Your task to perform on an android device: Open Yahoo.com Image 0: 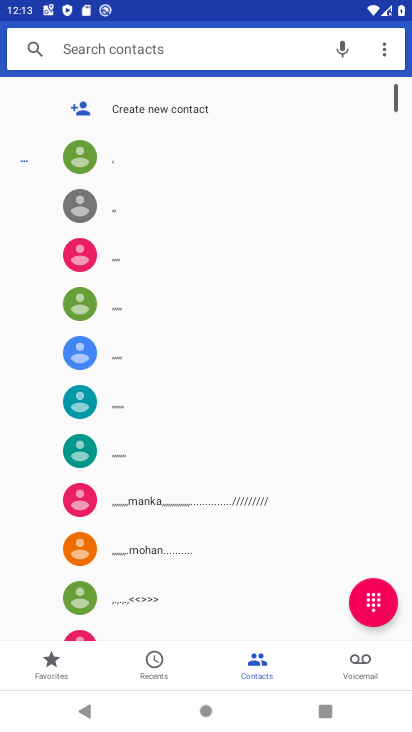
Step 0: press home button
Your task to perform on an android device: Open Yahoo.com Image 1: 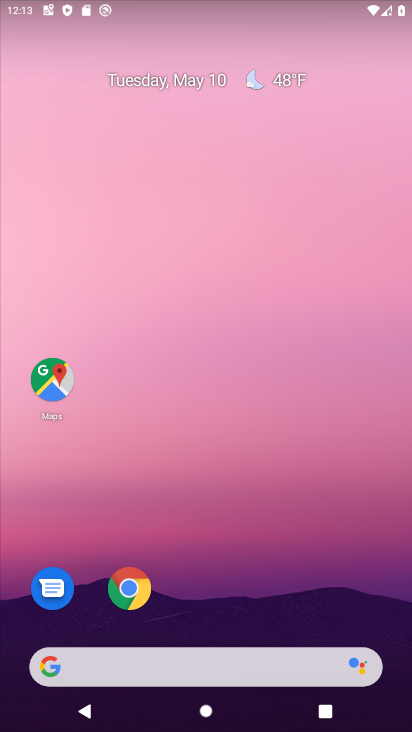
Step 1: click (132, 578)
Your task to perform on an android device: Open Yahoo.com Image 2: 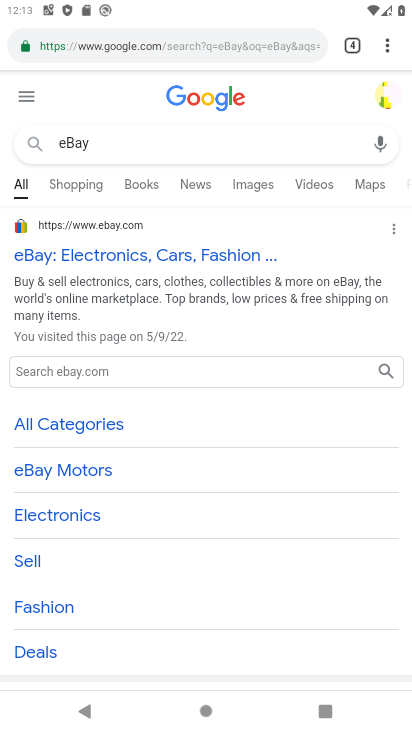
Step 2: click (377, 50)
Your task to perform on an android device: Open Yahoo.com Image 3: 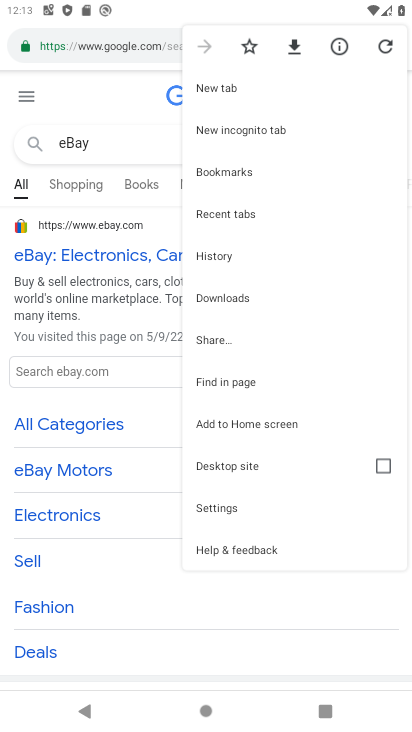
Step 3: click (241, 83)
Your task to perform on an android device: Open Yahoo.com Image 4: 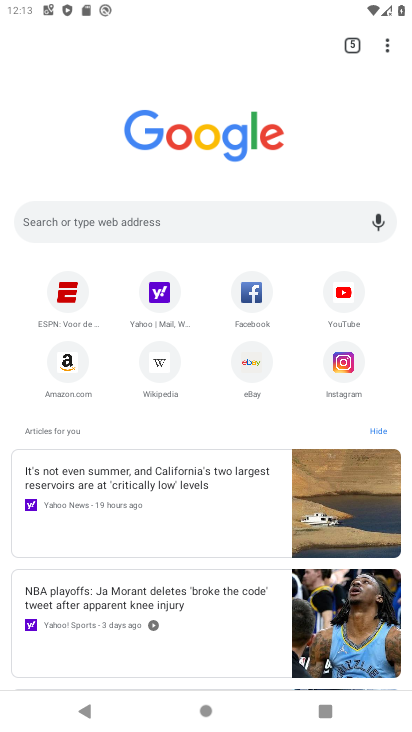
Step 4: click (153, 280)
Your task to perform on an android device: Open Yahoo.com Image 5: 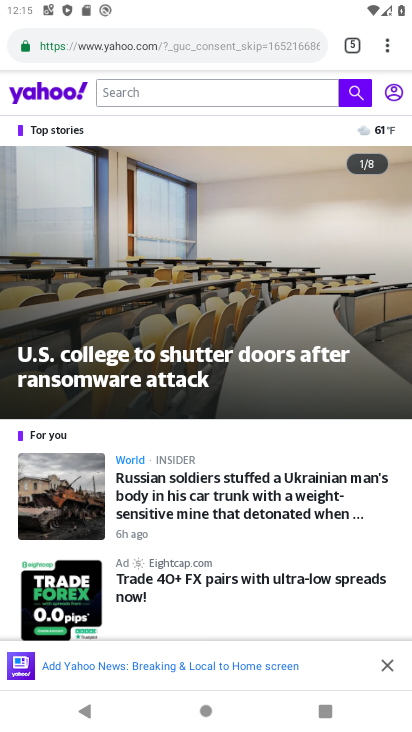
Step 5: task complete